Your task to perform on an android device: Go to Wikipedia Image 0: 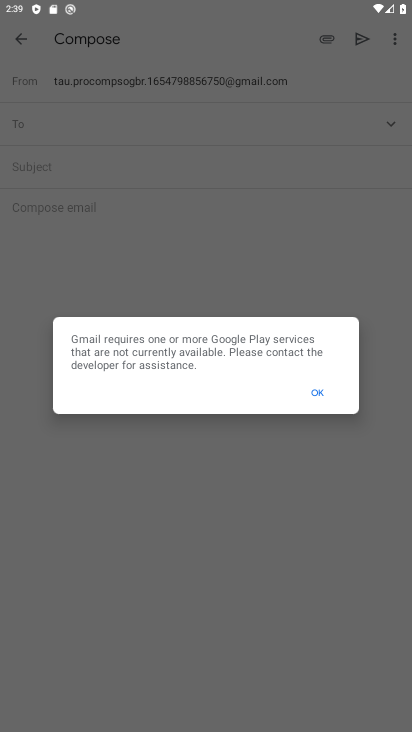
Step 0: click (312, 389)
Your task to perform on an android device: Go to Wikipedia Image 1: 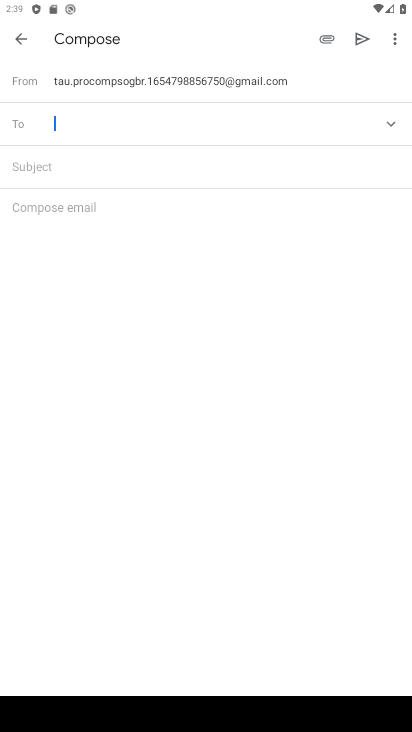
Step 1: press back button
Your task to perform on an android device: Go to Wikipedia Image 2: 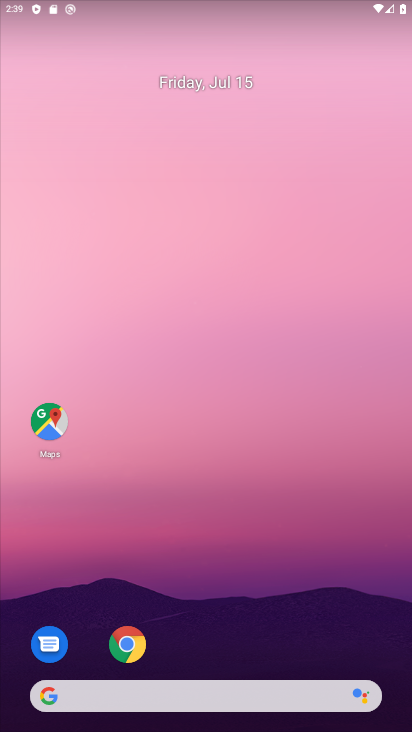
Step 2: click (126, 642)
Your task to perform on an android device: Go to Wikipedia Image 3: 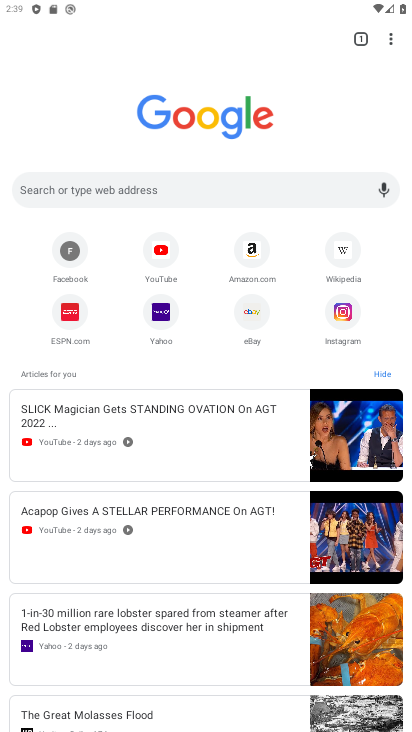
Step 3: click (339, 244)
Your task to perform on an android device: Go to Wikipedia Image 4: 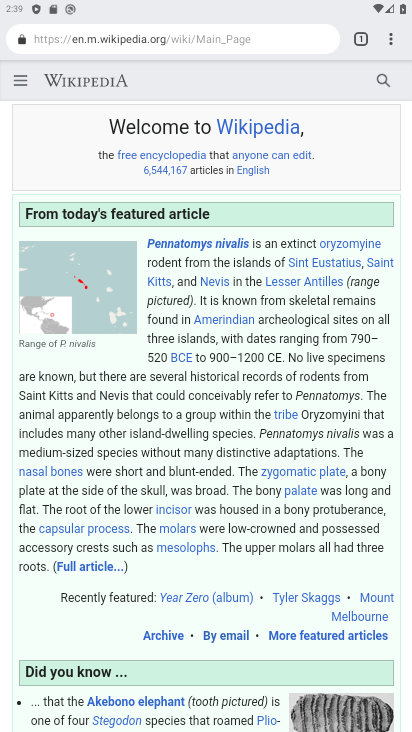
Step 4: task complete